Your task to perform on an android device: manage bookmarks in the chrome app Image 0: 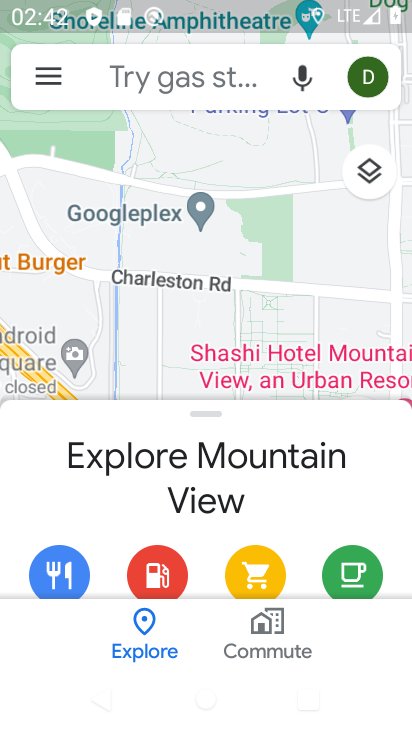
Step 0: press home button
Your task to perform on an android device: manage bookmarks in the chrome app Image 1: 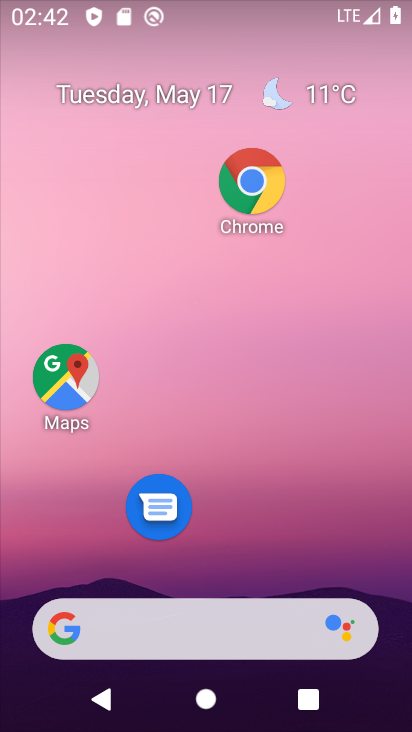
Step 1: click (250, 161)
Your task to perform on an android device: manage bookmarks in the chrome app Image 2: 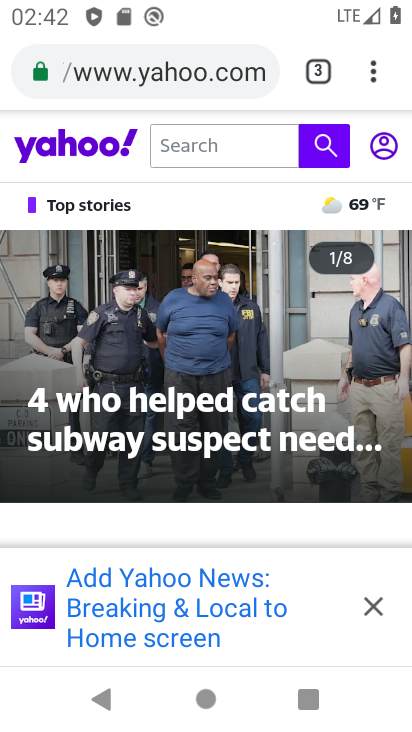
Step 2: click (382, 63)
Your task to perform on an android device: manage bookmarks in the chrome app Image 3: 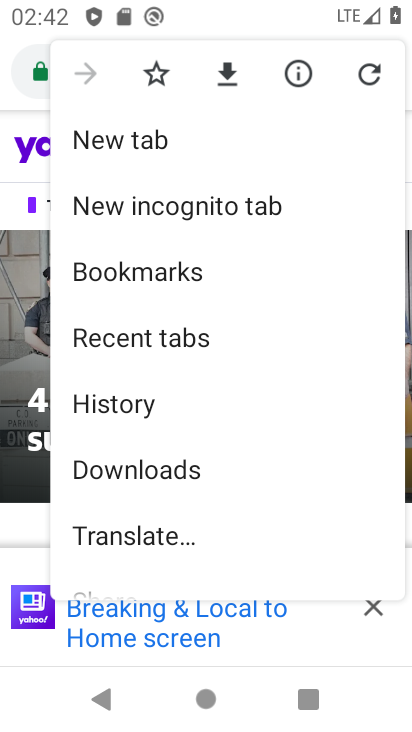
Step 3: click (193, 288)
Your task to perform on an android device: manage bookmarks in the chrome app Image 4: 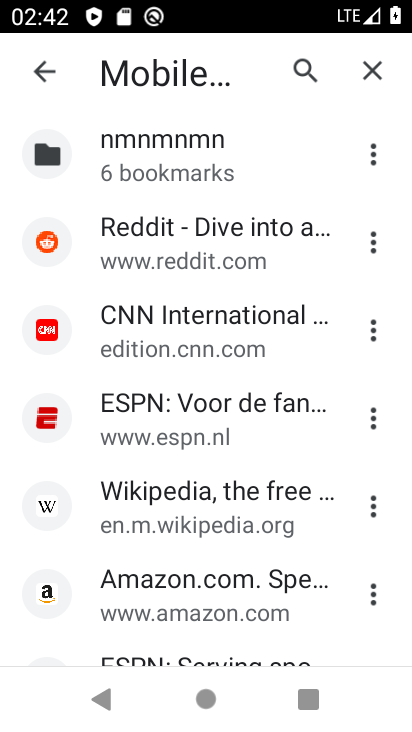
Step 4: click (396, 340)
Your task to perform on an android device: manage bookmarks in the chrome app Image 5: 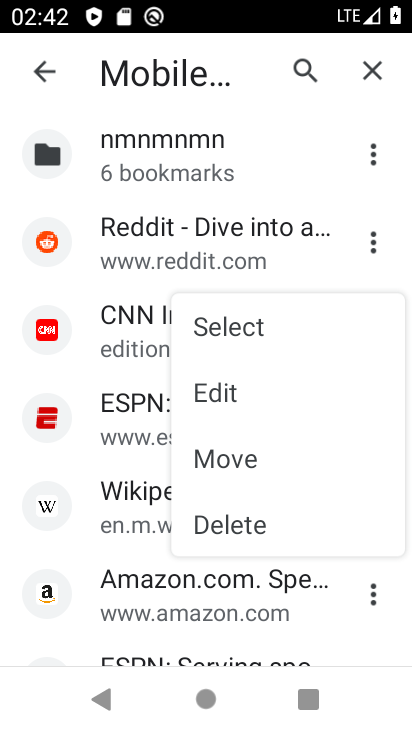
Step 5: click (222, 506)
Your task to perform on an android device: manage bookmarks in the chrome app Image 6: 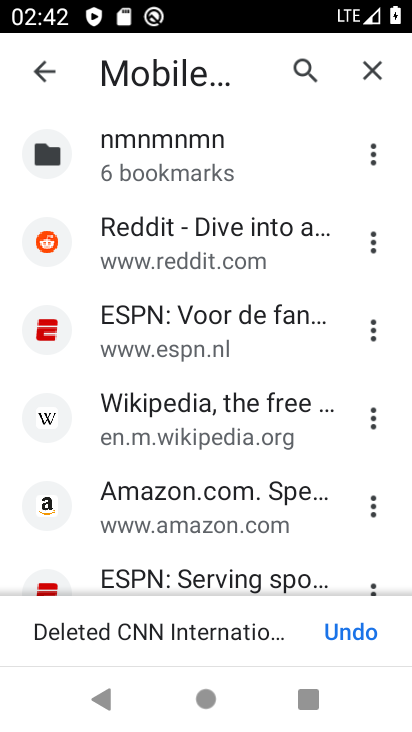
Step 6: task complete